Your task to perform on an android device: set the stopwatch Image 0: 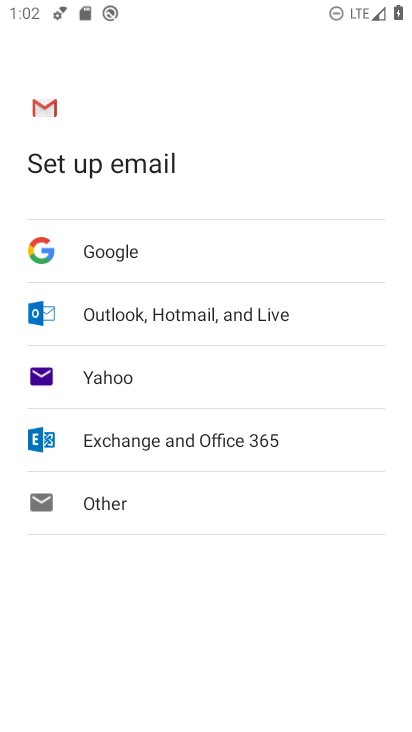
Step 0: press home button
Your task to perform on an android device: set the stopwatch Image 1: 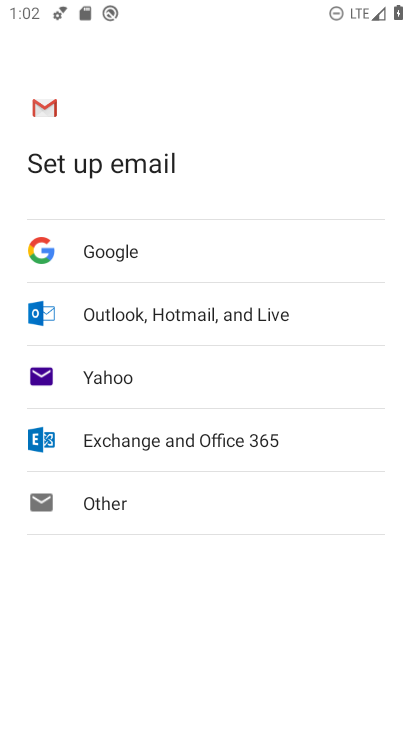
Step 1: press home button
Your task to perform on an android device: set the stopwatch Image 2: 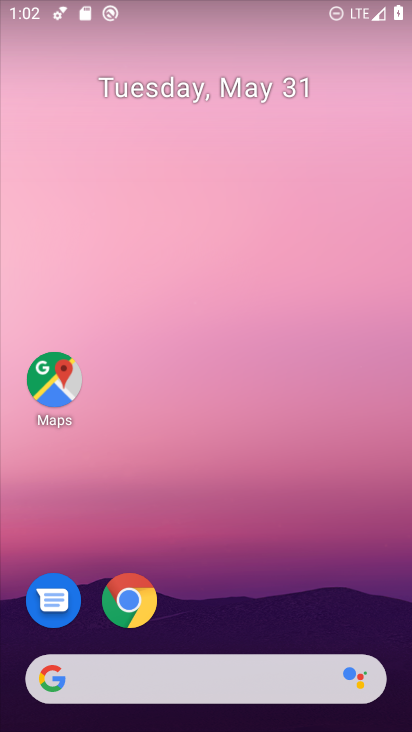
Step 2: drag from (214, 706) to (214, 555)
Your task to perform on an android device: set the stopwatch Image 3: 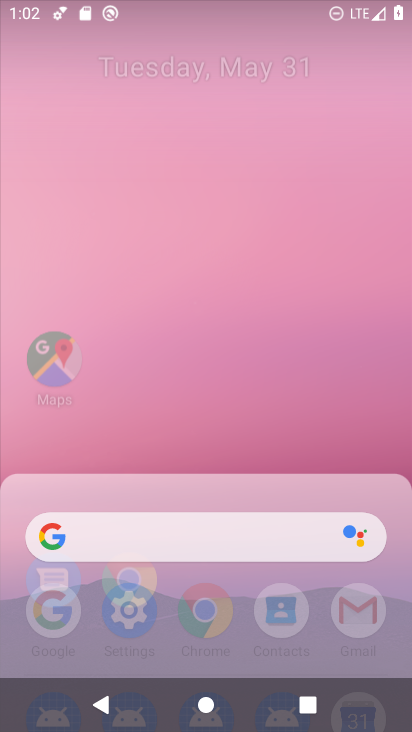
Step 3: click (214, 40)
Your task to perform on an android device: set the stopwatch Image 4: 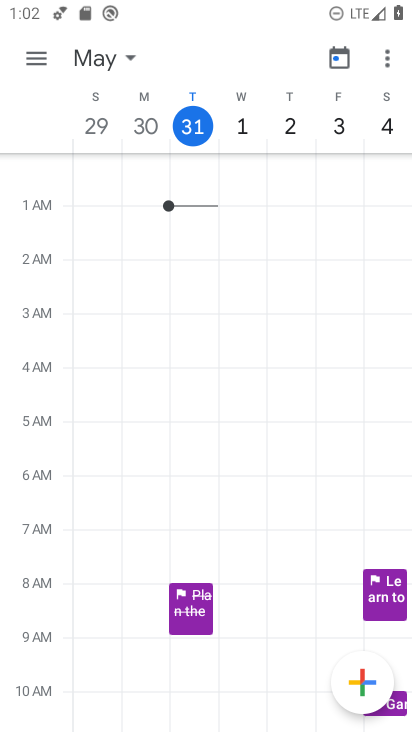
Step 4: press home button
Your task to perform on an android device: set the stopwatch Image 5: 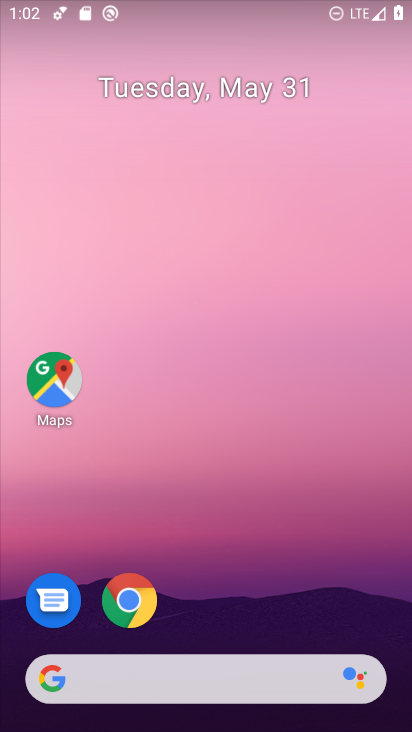
Step 5: drag from (220, 717) to (204, 52)
Your task to perform on an android device: set the stopwatch Image 6: 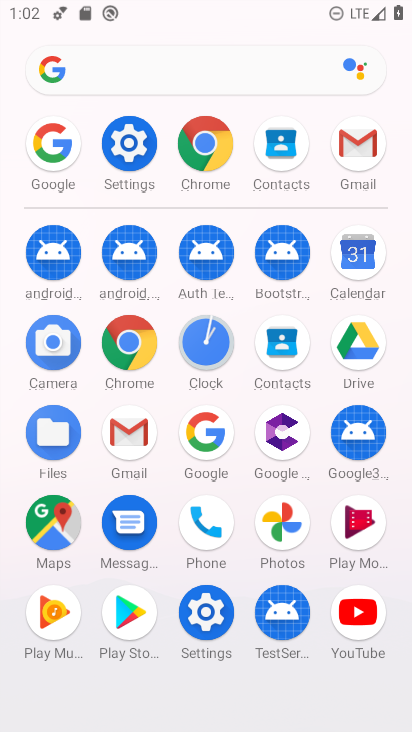
Step 6: click (205, 346)
Your task to perform on an android device: set the stopwatch Image 7: 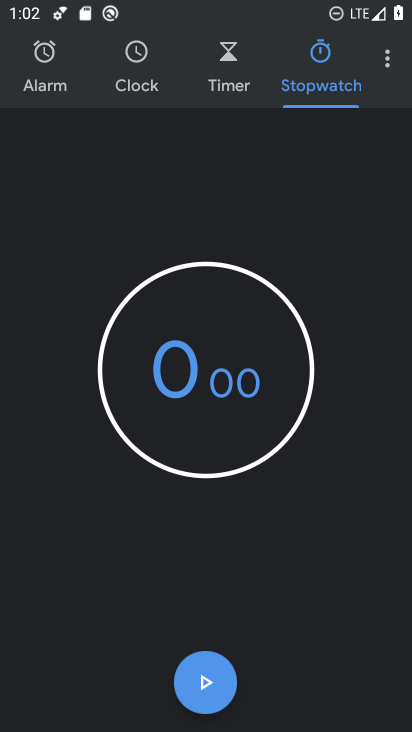
Step 7: click (199, 382)
Your task to perform on an android device: set the stopwatch Image 8: 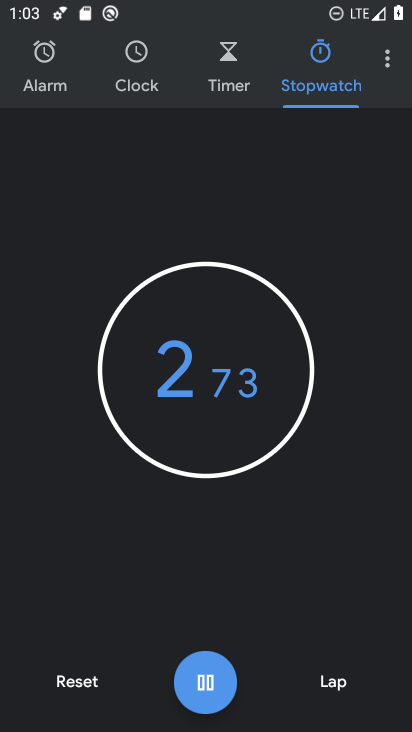
Step 8: type "77"
Your task to perform on an android device: set the stopwatch Image 9: 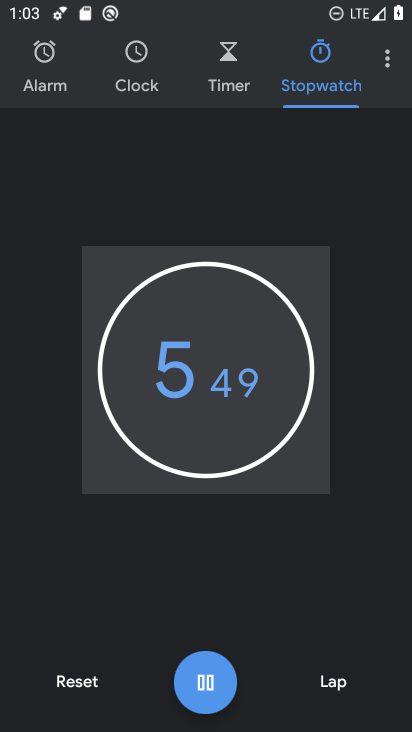
Step 9: task complete